Your task to perform on an android device: turn off javascript in the chrome app Image 0: 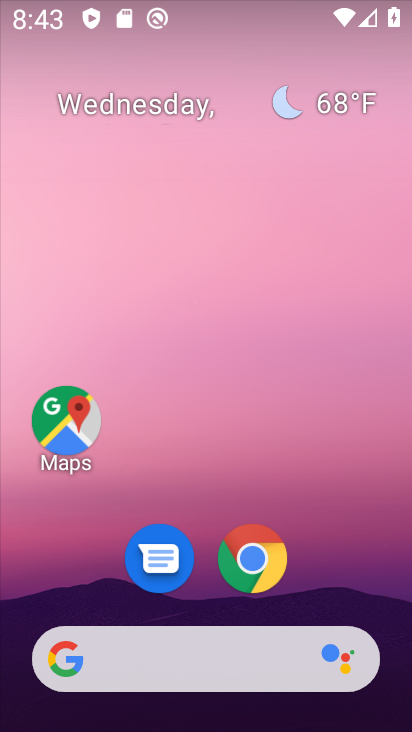
Step 0: drag from (386, 608) to (222, 58)
Your task to perform on an android device: turn off javascript in the chrome app Image 1: 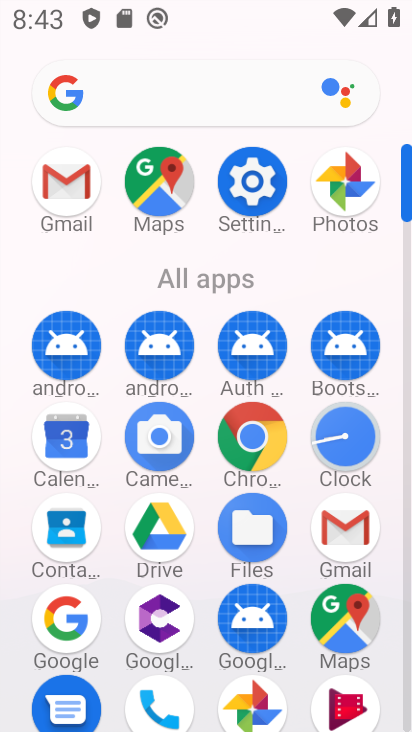
Step 1: click (243, 452)
Your task to perform on an android device: turn off javascript in the chrome app Image 2: 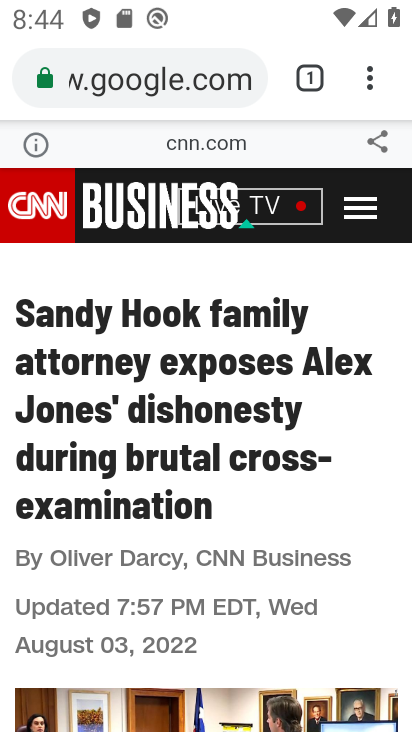
Step 2: click (367, 95)
Your task to perform on an android device: turn off javascript in the chrome app Image 3: 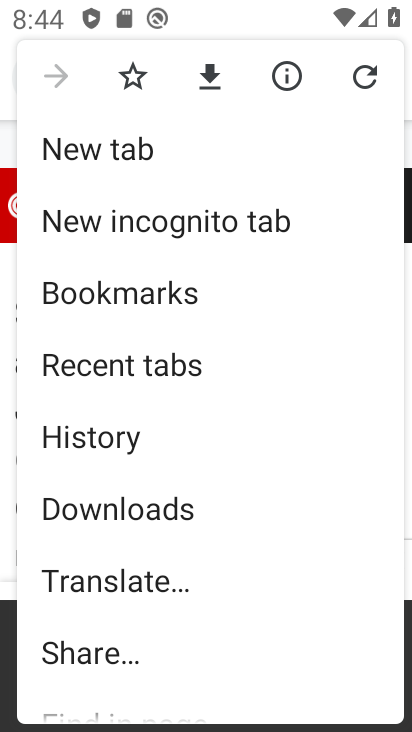
Step 3: drag from (192, 662) to (173, 249)
Your task to perform on an android device: turn off javascript in the chrome app Image 4: 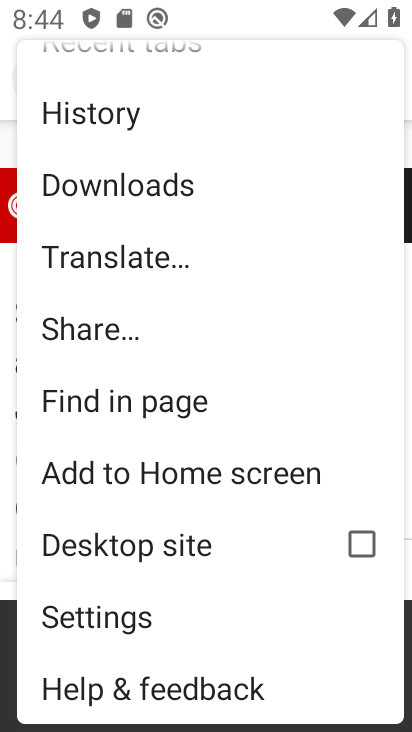
Step 4: click (134, 611)
Your task to perform on an android device: turn off javascript in the chrome app Image 5: 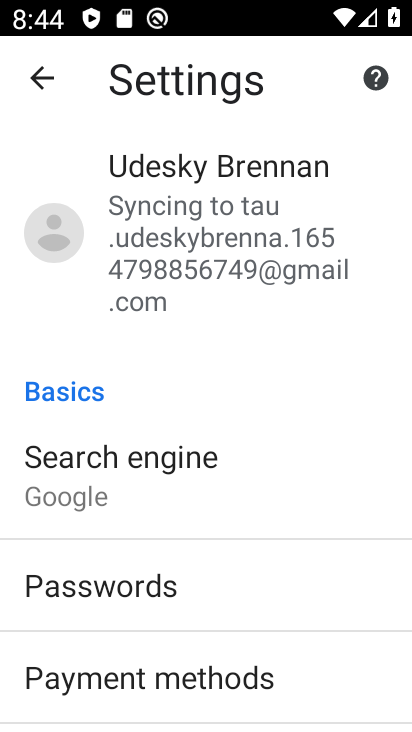
Step 5: drag from (242, 717) to (167, 162)
Your task to perform on an android device: turn off javascript in the chrome app Image 6: 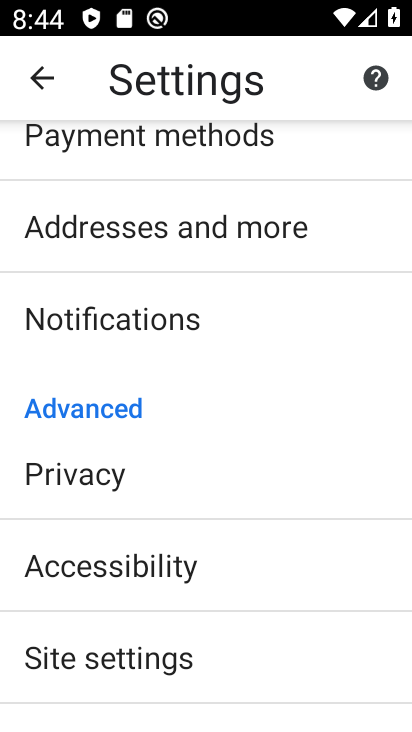
Step 6: click (219, 643)
Your task to perform on an android device: turn off javascript in the chrome app Image 7: 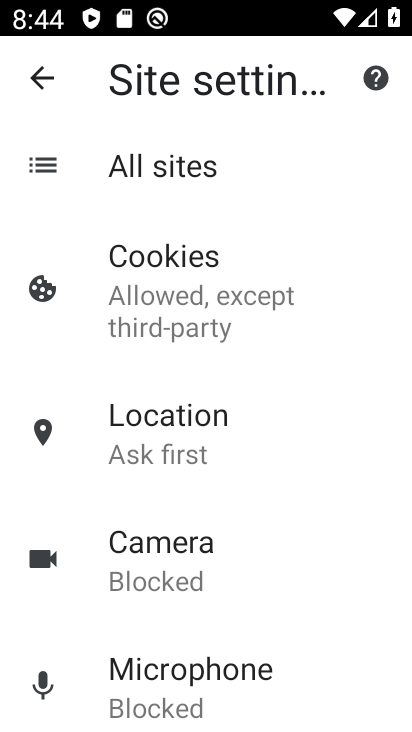
Step 7: drag from (289, 662) to (284, 175)
Your task to perform on an android device: turn off javascript in the chrome app Image 8: 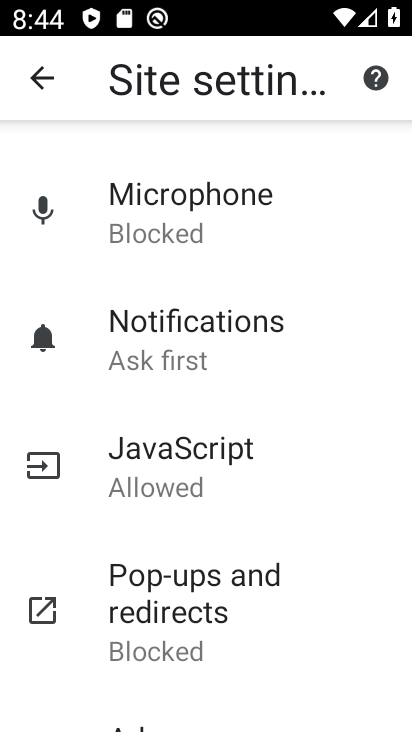
Step 8: click (254, 488)
Your task to perform on an android device: turn off javascript in the chrome app Image 9: 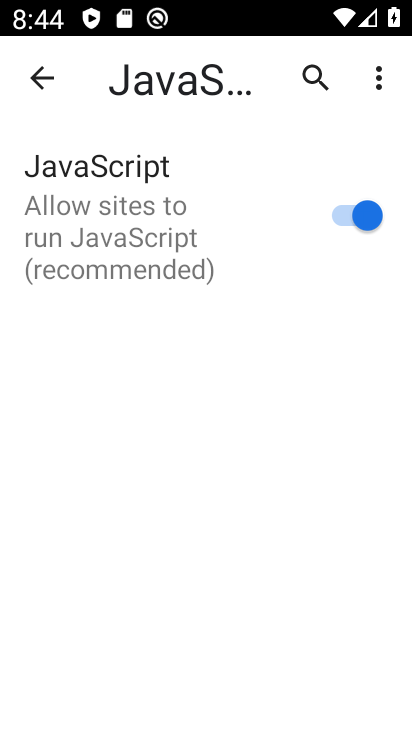
Step 9: click (357, 217)
Your task to perform on an android device: turn off javascript in the chrome app Image 10: 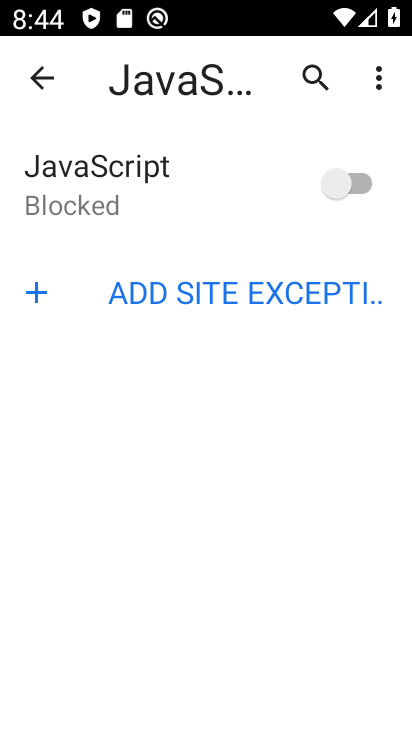
Step 10: task complete